Your task to perform on an android device: Open calendar and show me the third week of next month Image 0: 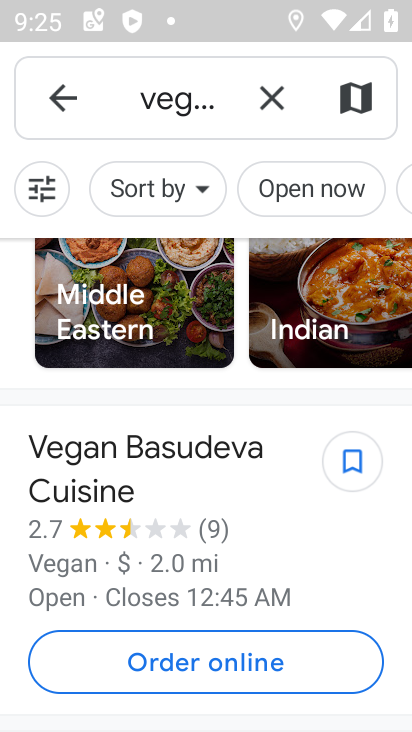
Step 0: press home button
Your task to perform on an android device: Open calendar and show me the third week of next month Image 1: 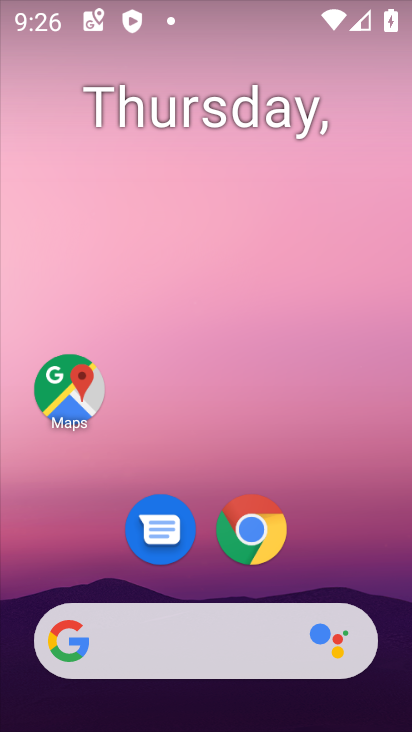
Step 1: drag from (326, 562) to (187, 57)
Your task to perform on an android device: Open calendar and show me the third week of next month Image 2: 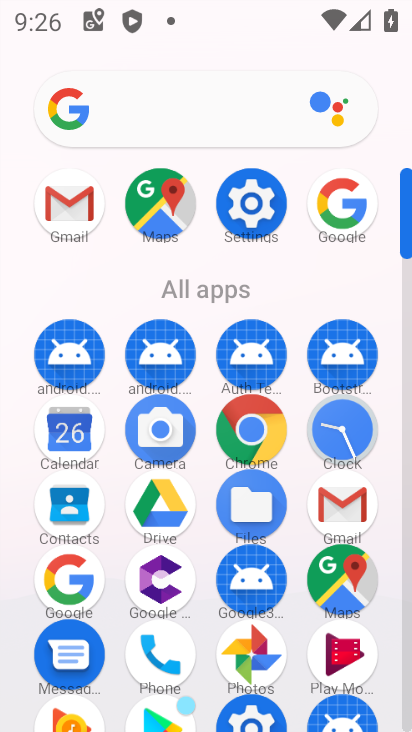
Step 2: click (77, 433)
Your task to perform on an android device: Open calendar and show me the third week of next month Image 3: 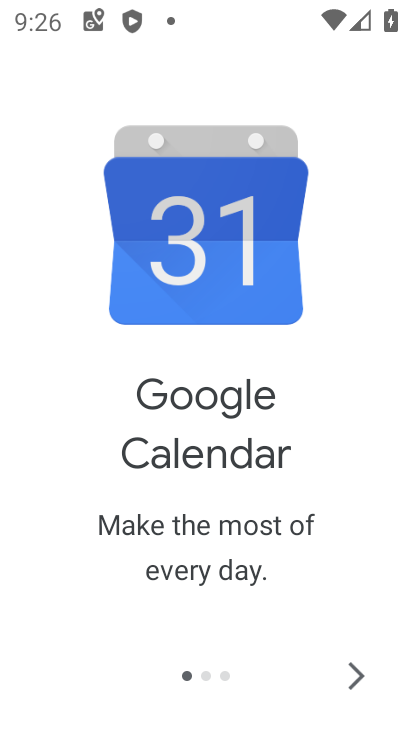
Step 3: click (363, 669)
Your task to perform on an android device: Open calendar and show me the third week of next month Image 4: 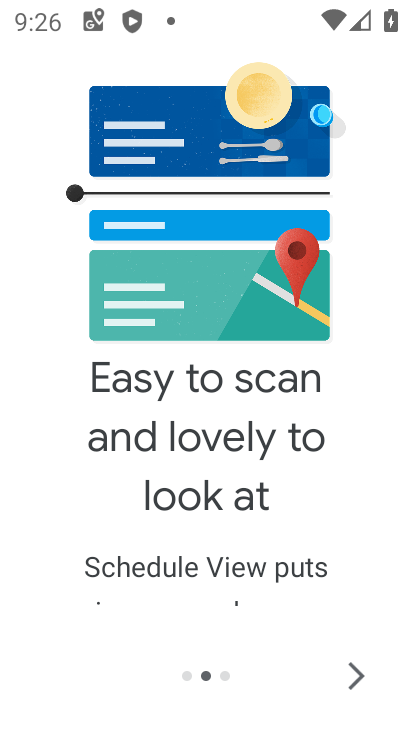
Step 4: click (363, 669)
Your task to perform on an android device: Open calendar and show me the third week of next month Image 5: 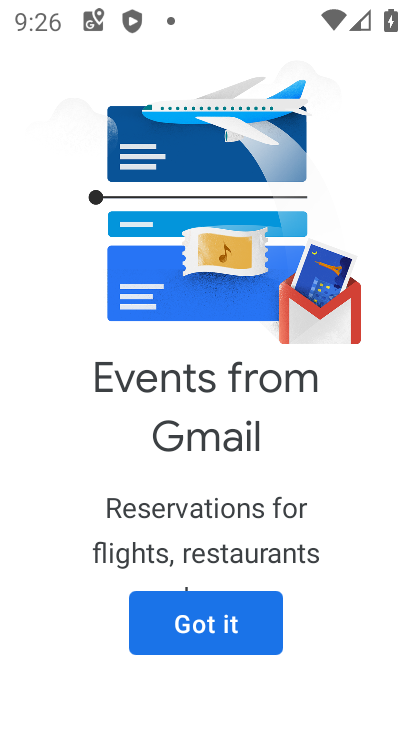
Step 5: click (205, 625)
Your task to perform on an android device: Open calendar and show me the third week of next month Image 6: 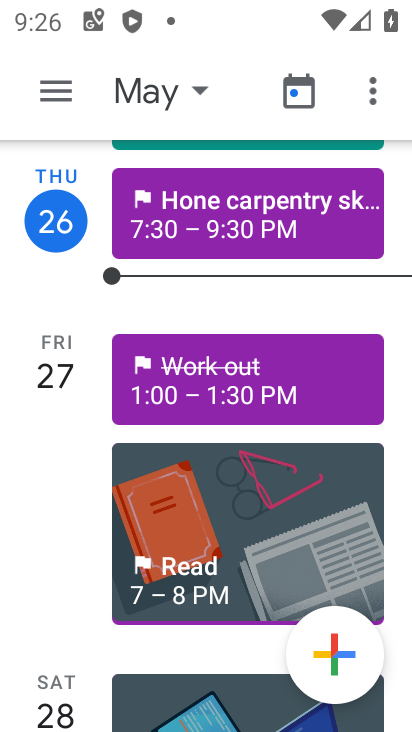
Step 6: click (203, 88)
Your task to perform on an android device: Open calendar and show me the third week of next month Image 7: 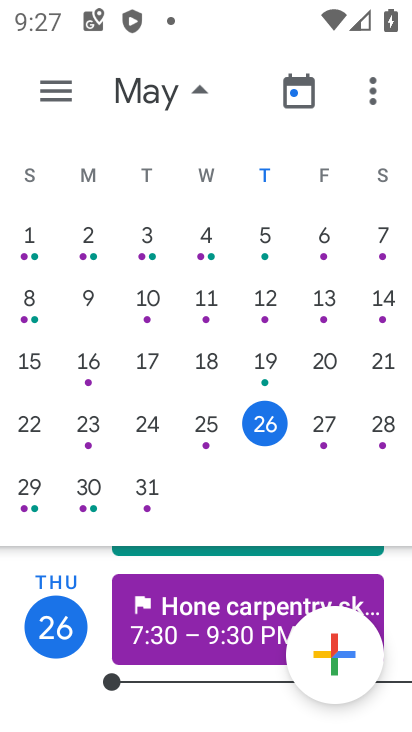
Step 7: drag from (362, 348) to (9, 325)
Your task to perform on an android device: Open calendar and show me the third week of next month Image 8: 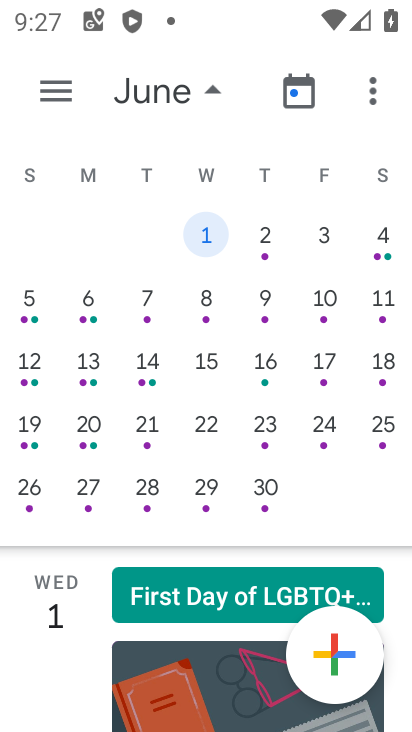
Step 8: click (94, 418)
Your task to perform on an android device: Open calendar and show me the third week of next month Image 9: 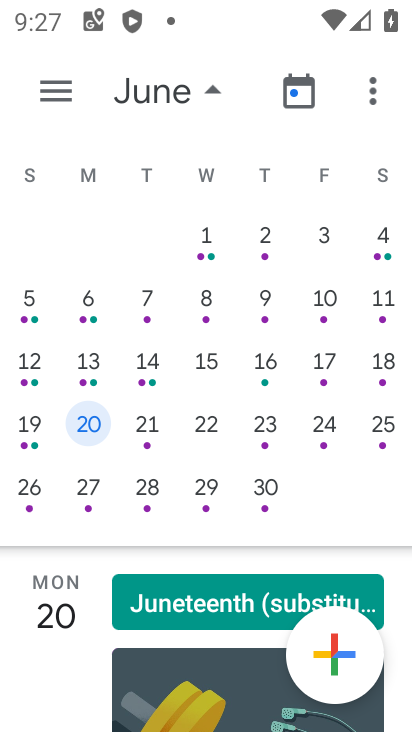
Step 9: click (59, 94)
Your task to perform on an android device: Open calendar and show me the third week of next month Image 10: 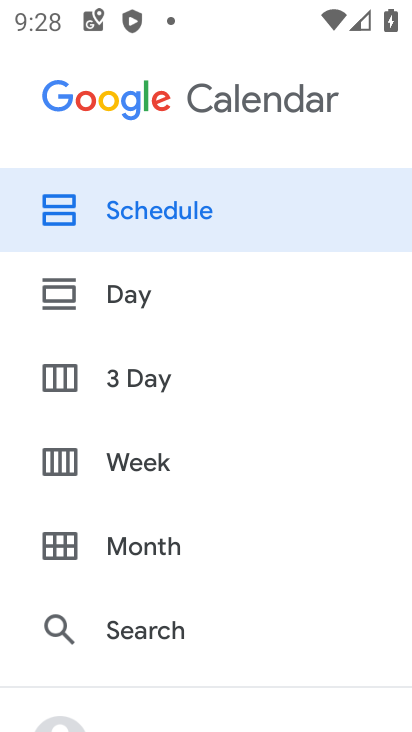
Step 10: click (146, 466)
Your task to perform on an android device: Open calendar and show me the third week of next month Image 11: 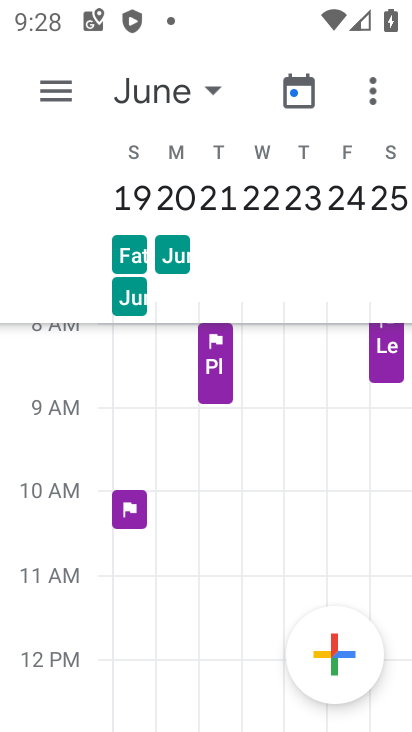
Step 11: task complete